Your task to perform on an android device: star an email in the gmail app Image 0: 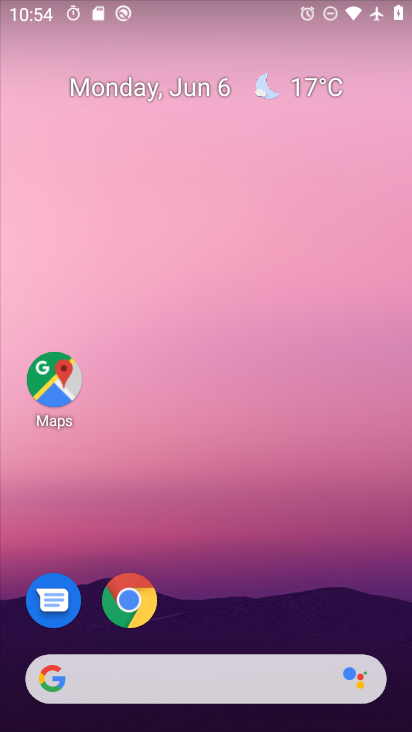
Step 0: press home button
Your task to perform on an android device: star an email in the gmail app Image 1: 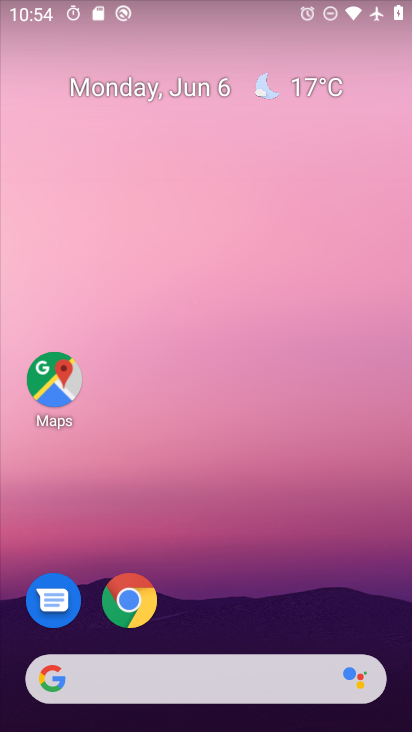
Step 1: drag from (259, 401) to (185, 66)
Your task to perform on an android device: star an email in the gmail app Image 2: 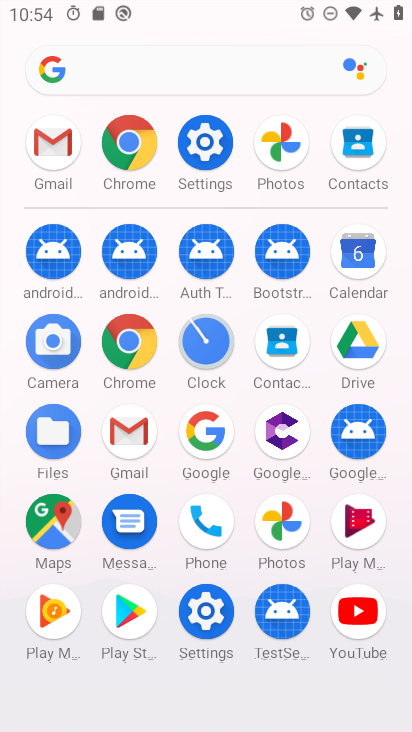
Step 2: click (63, 159)
Your task to perform on an android device: star an email in the gmail app Image 3: 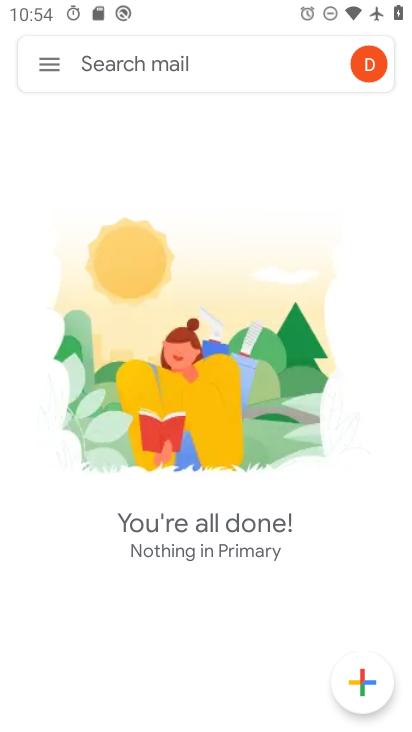
Step 3: click (48, 71)
Your task to perform on an android device: star an email in the gmail app Image 4: 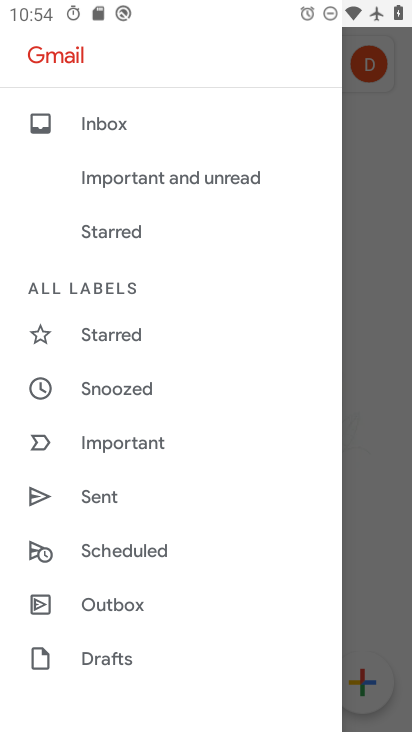
Step 4: click (366, 264)
Your task to perform on an android device: star an email in the gmail app Image 5: 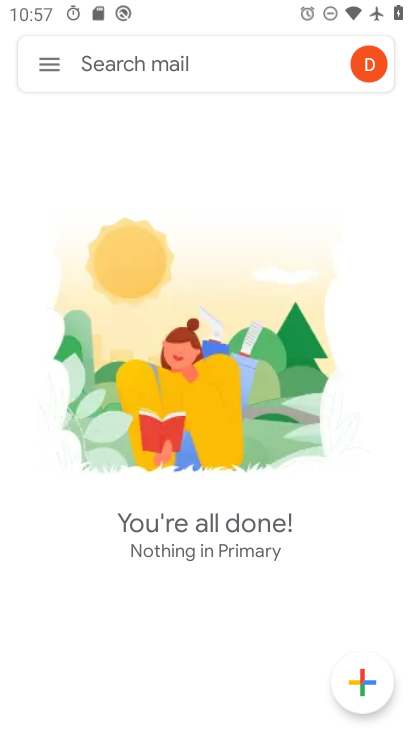
Step 5: task complete